Your task to perform on an android device: snooze an email in the gmail app Image 0: 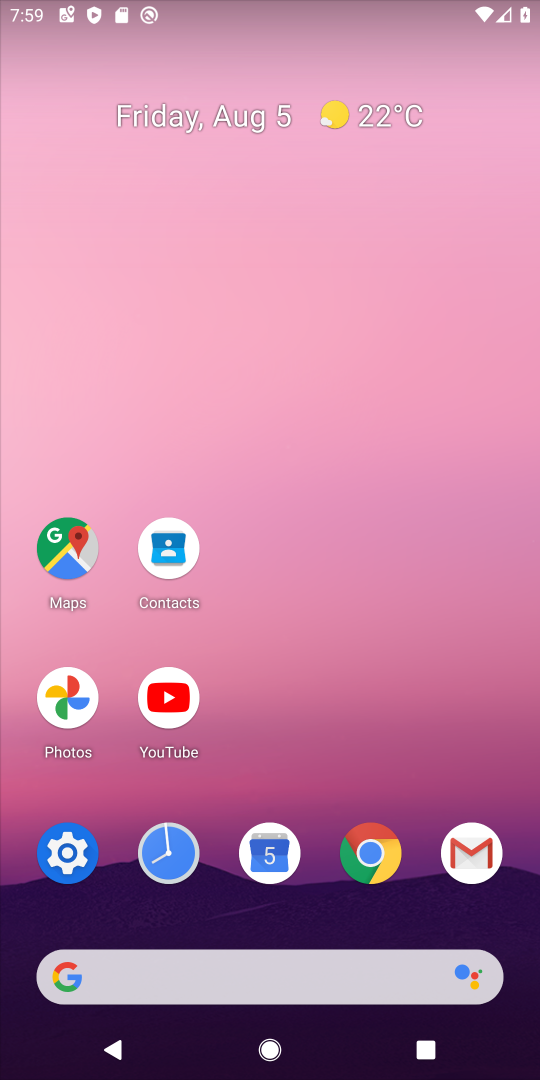
Step 0: click (476, 855)
Your task to perform on an android device: snooze an email in the gmail app Image 1: 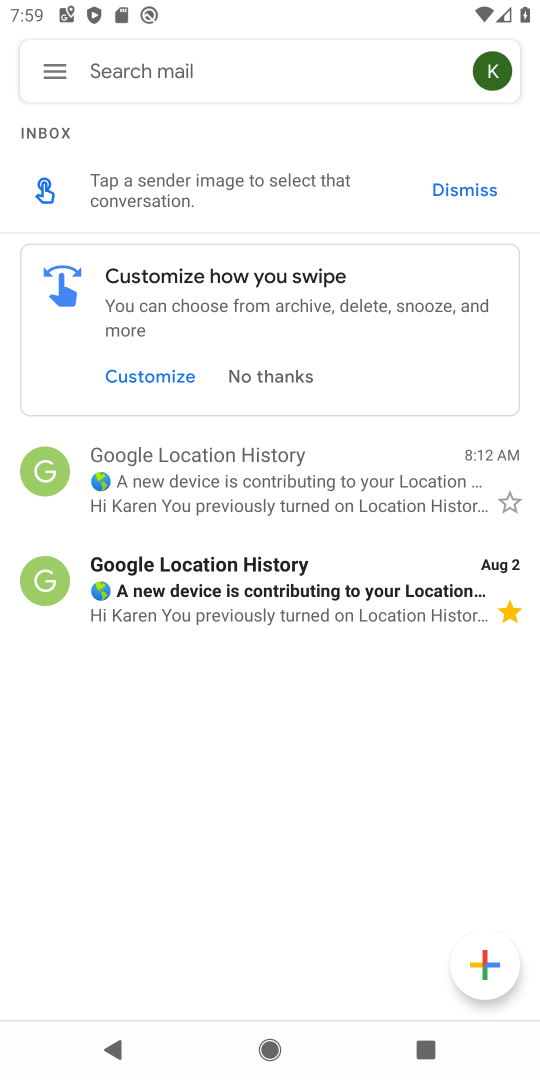
Step 1: click (268, 450)
Your task to perform on an android device: snooze an email in the gmail app Image 2: 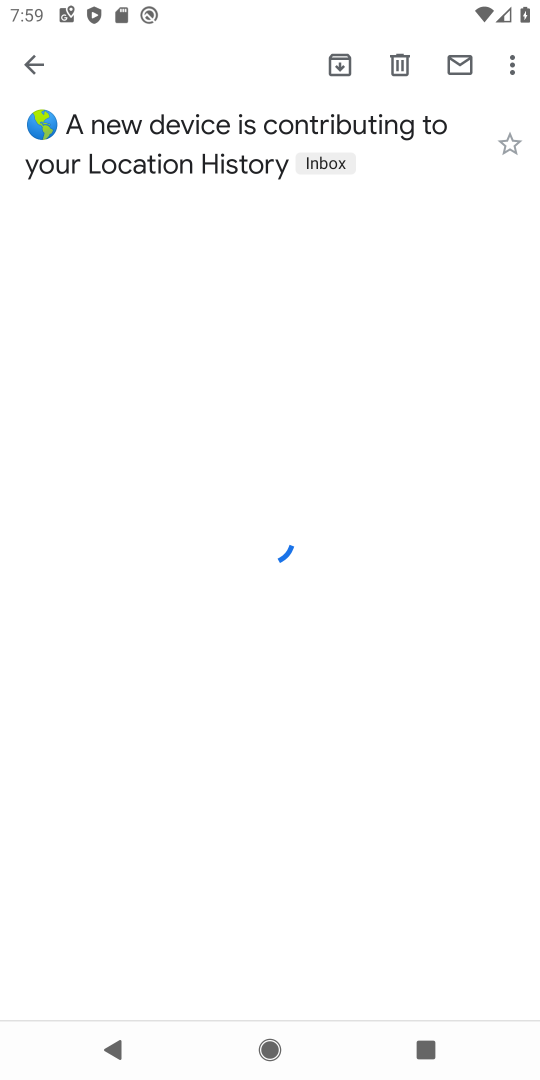
Step 2: click (515, 72)
Your task to perform on an android device: snooze an email in the gmail app Image 3: 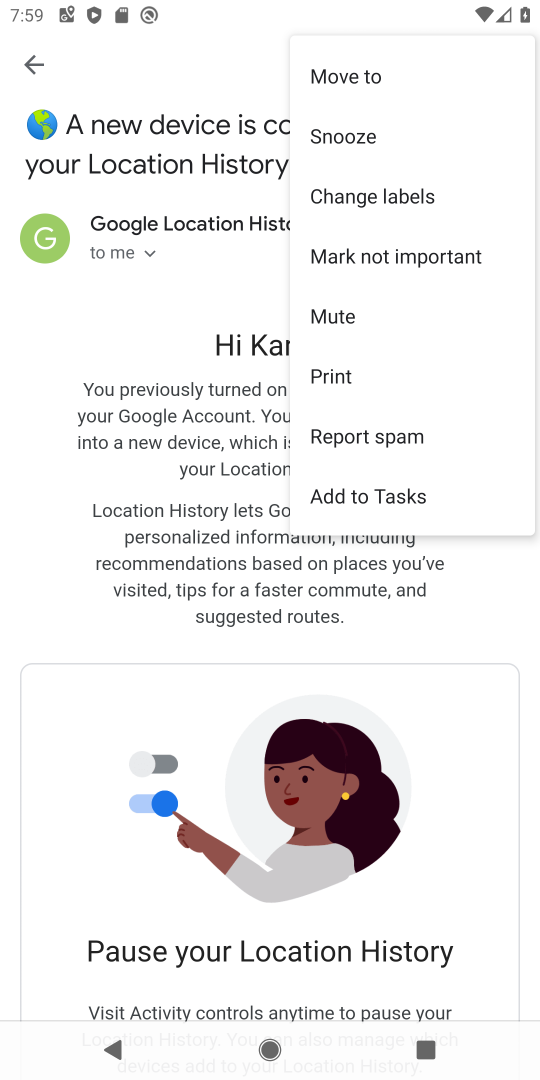
Step 3: click (343, 135)
Your task to perform on an android device: snooze an email in the gmail app Image 4: 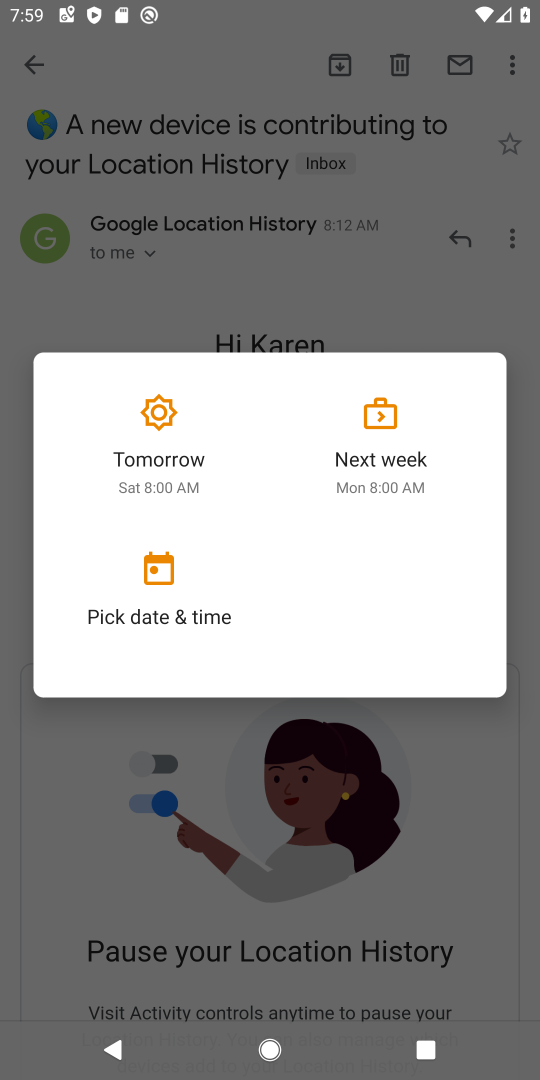
Step 4: click (167, 429)
Your task to perform on an android device: snooze an email in the gmail app Image 5: 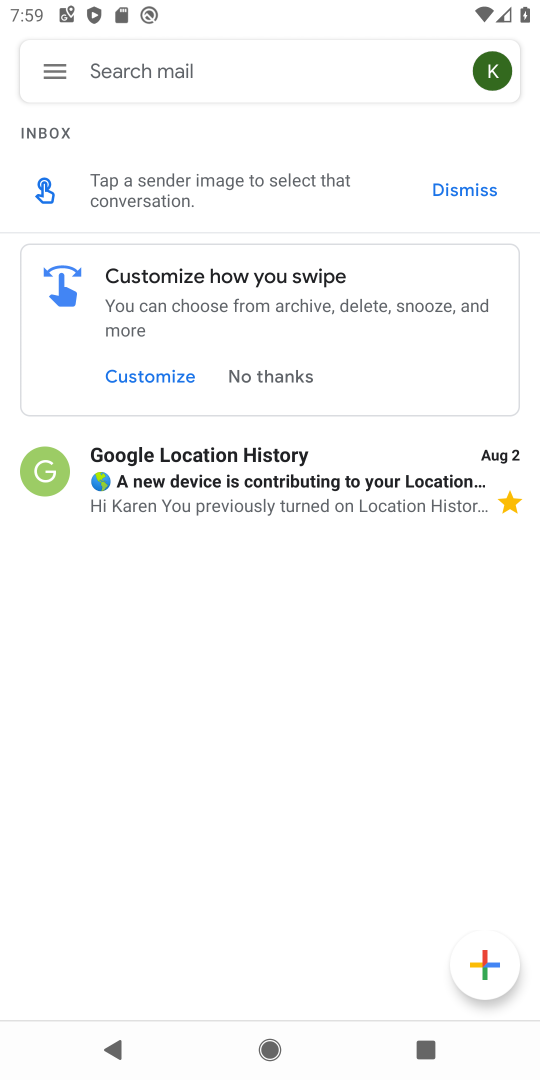
Step 5: task complete